Your task to perform on an android device: Clear the shopping cart on ebay. Search for usb-b on ebay, select the first entry, add it to the cart, then select checkout. Image 0: 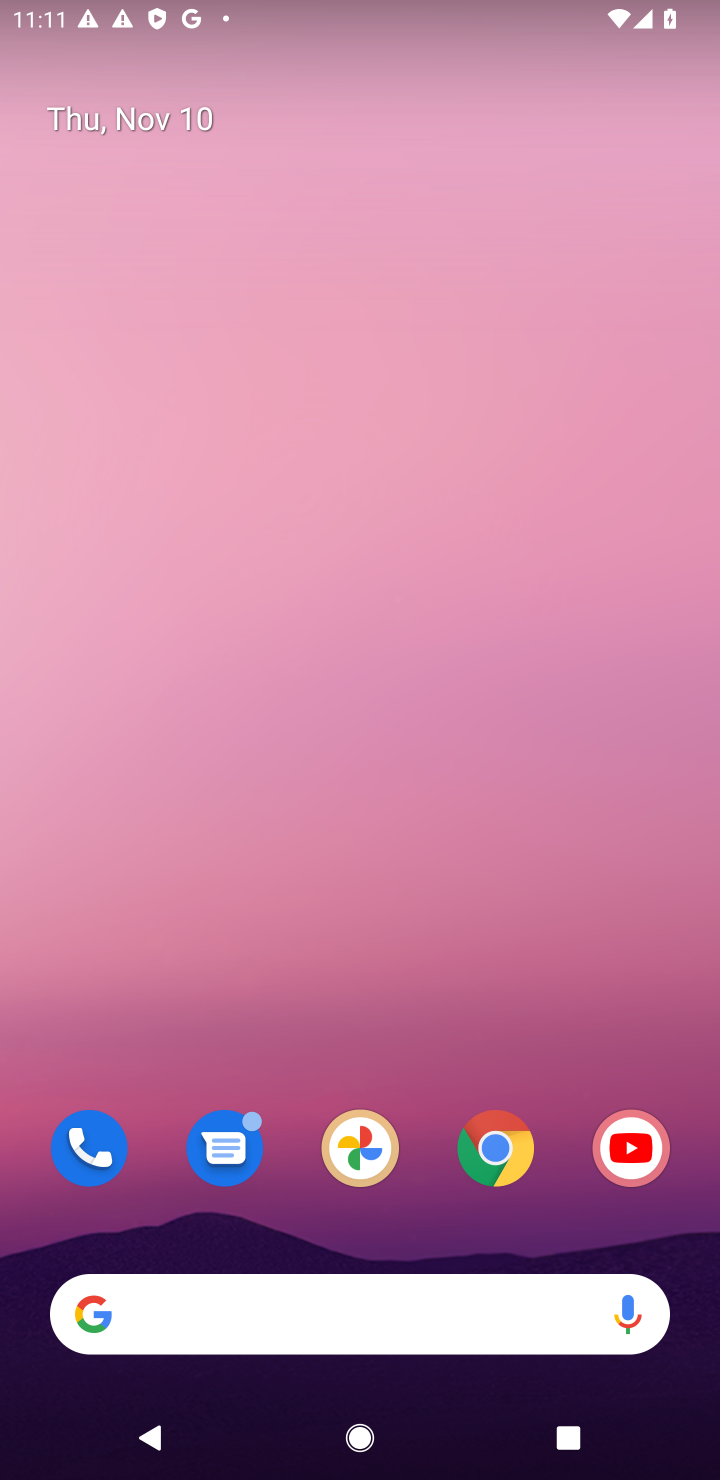
Step 0: click (490, 1135)
Your task to perform on an android device: Clear the shopping cart on ebay. Search for usb-b on ebay, select the first entry, add it to the cart, then select checkout. Image 1: 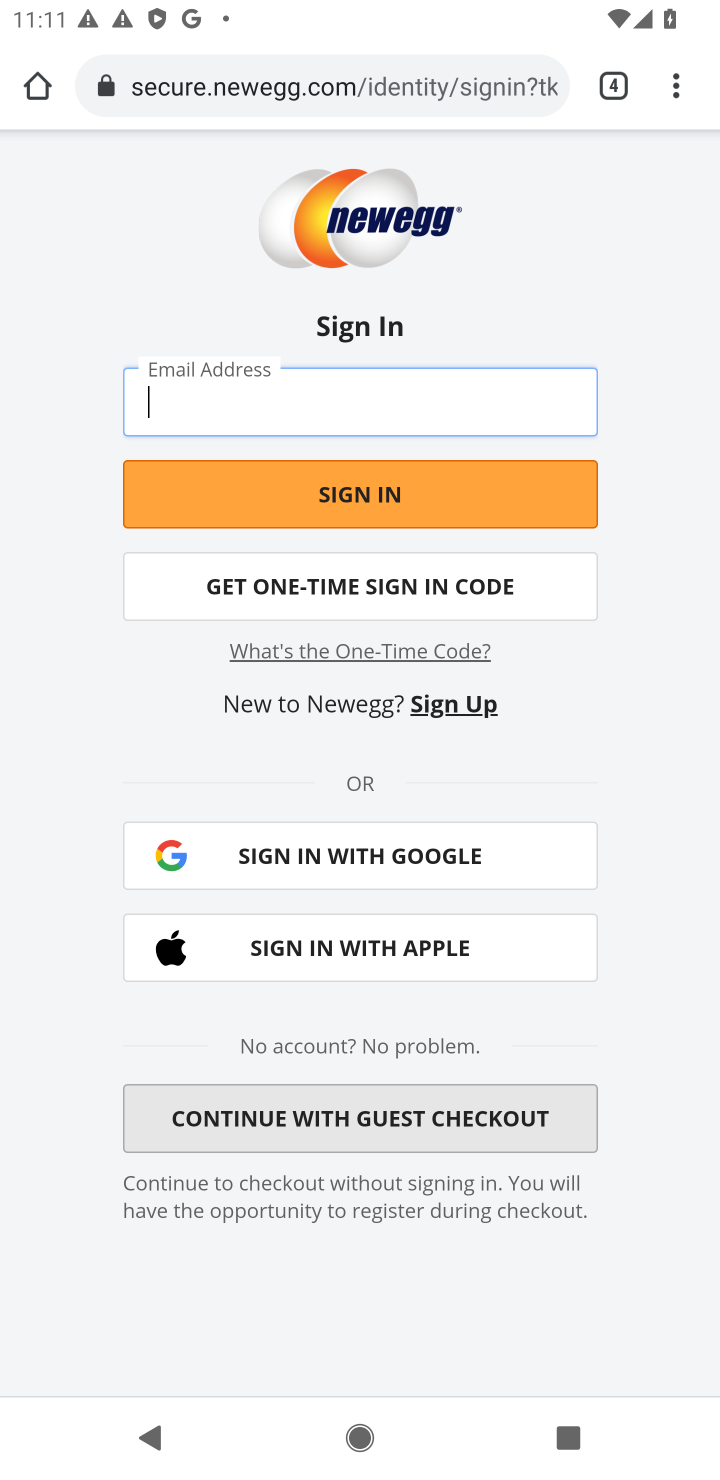
Step 1: click (612, 98)
Your task to perform on an android device: Clear the shopping cart on ebay. Search for usb-b on ebay, select the first entry, add it to the cart, then select checkout. Image 2: 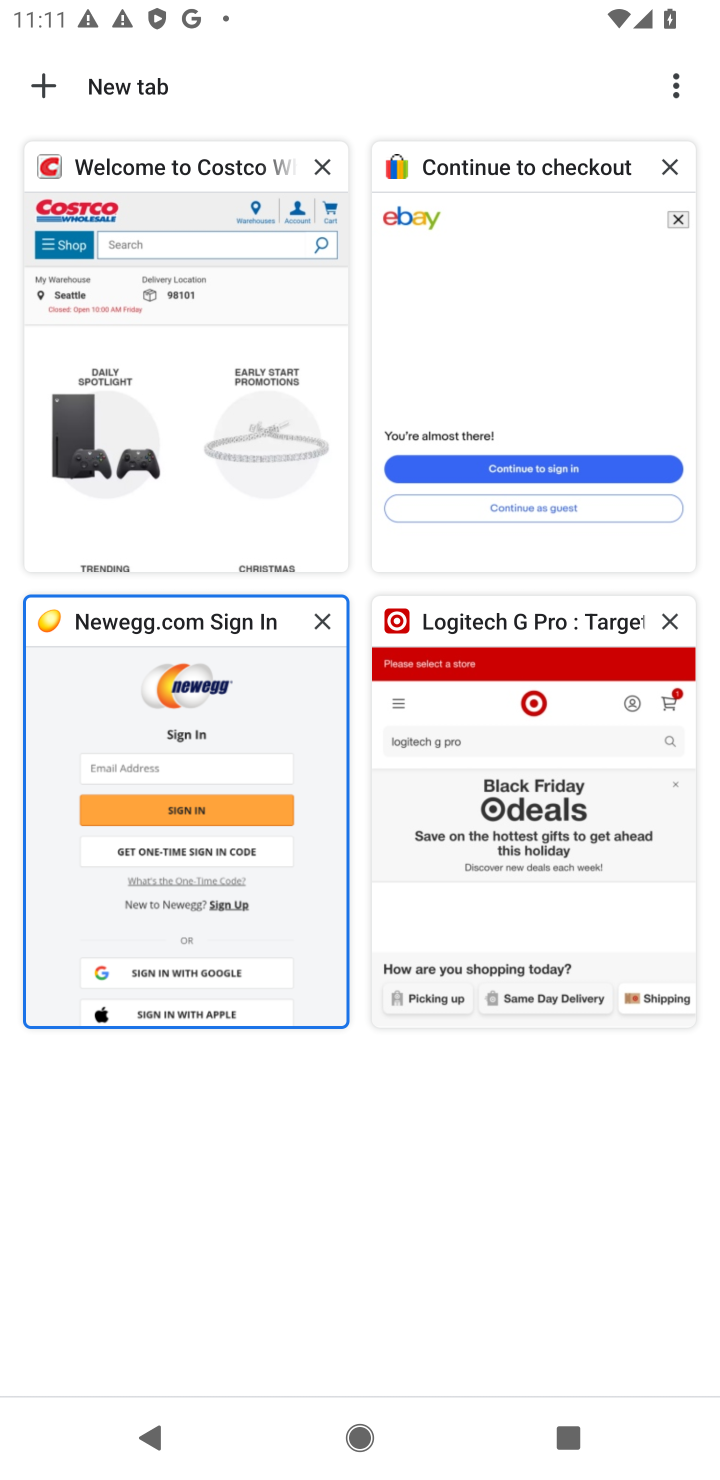
Step 2: click (486, 232)
Your task to perform on an android device: Clear the shopping cart on ebay. Search for usb-b on ebay, select the first entry, add it to the cart, then select checkout. Image 3: 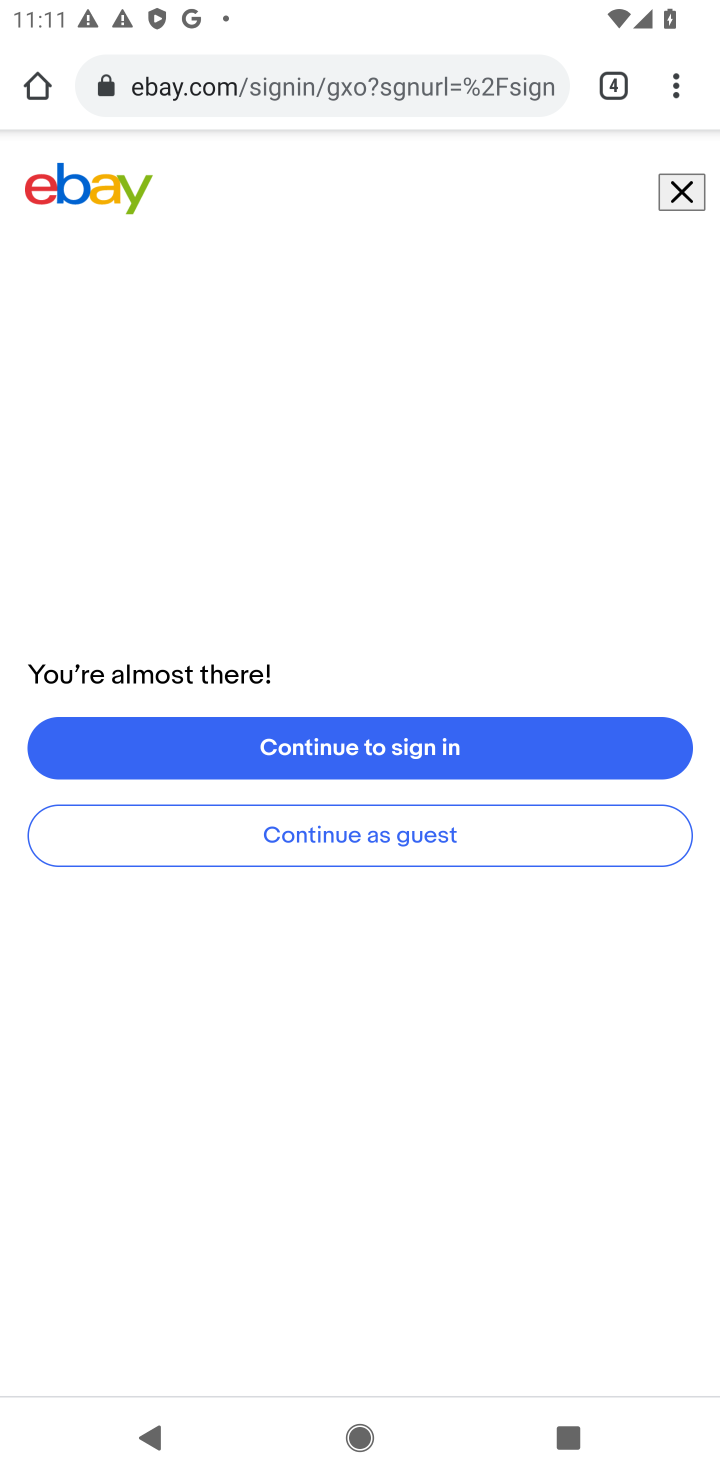
Step 3: click (687, 195)
Your task to perform on an android device: Clear the shopping cart on ebay. Search for usb-b on ebay, select the first entry, add it to the cart, then select checkout. Image 4: 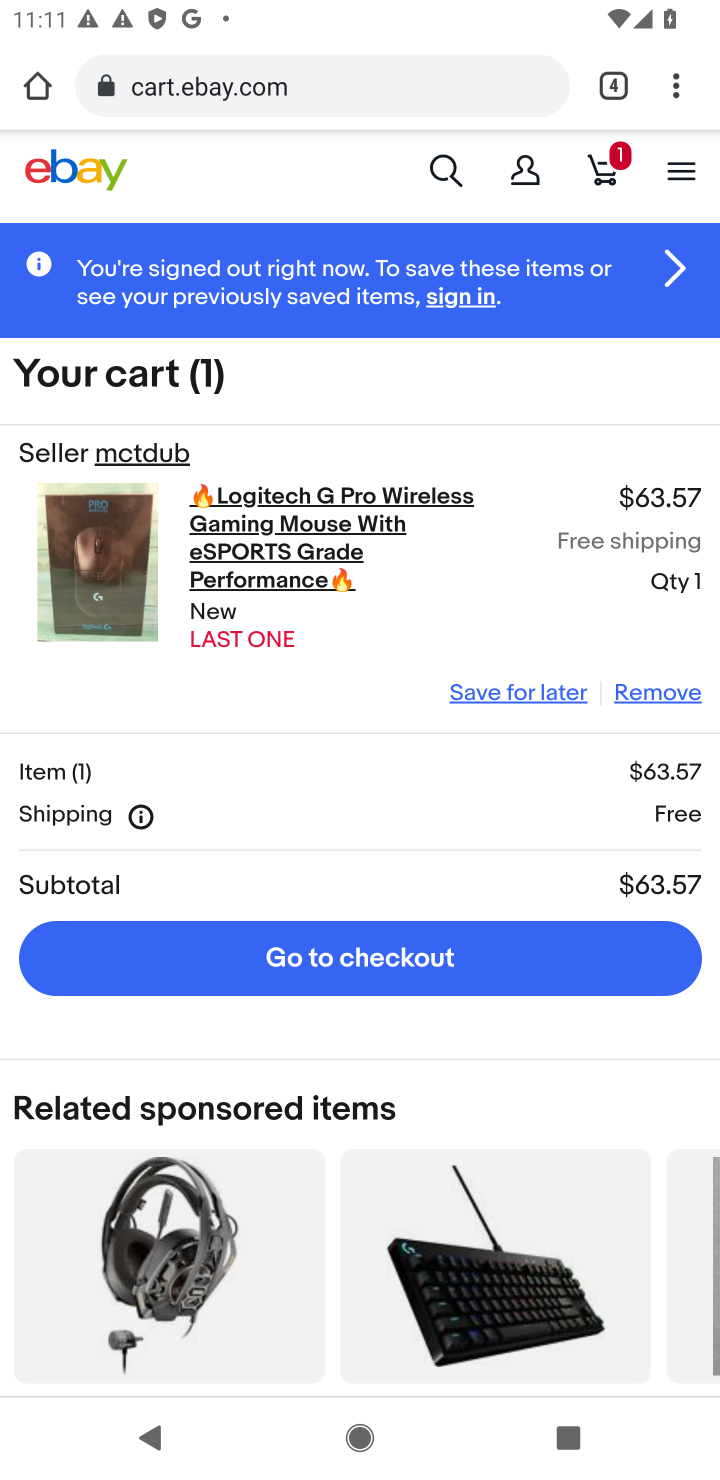
Step 4: click (444, 164)
Your task to perform on an android device: Clear the shopping cart on ebay. Search for usb-b on ebay, select the first entry, add it to the cart, then select checkout. Image 5: 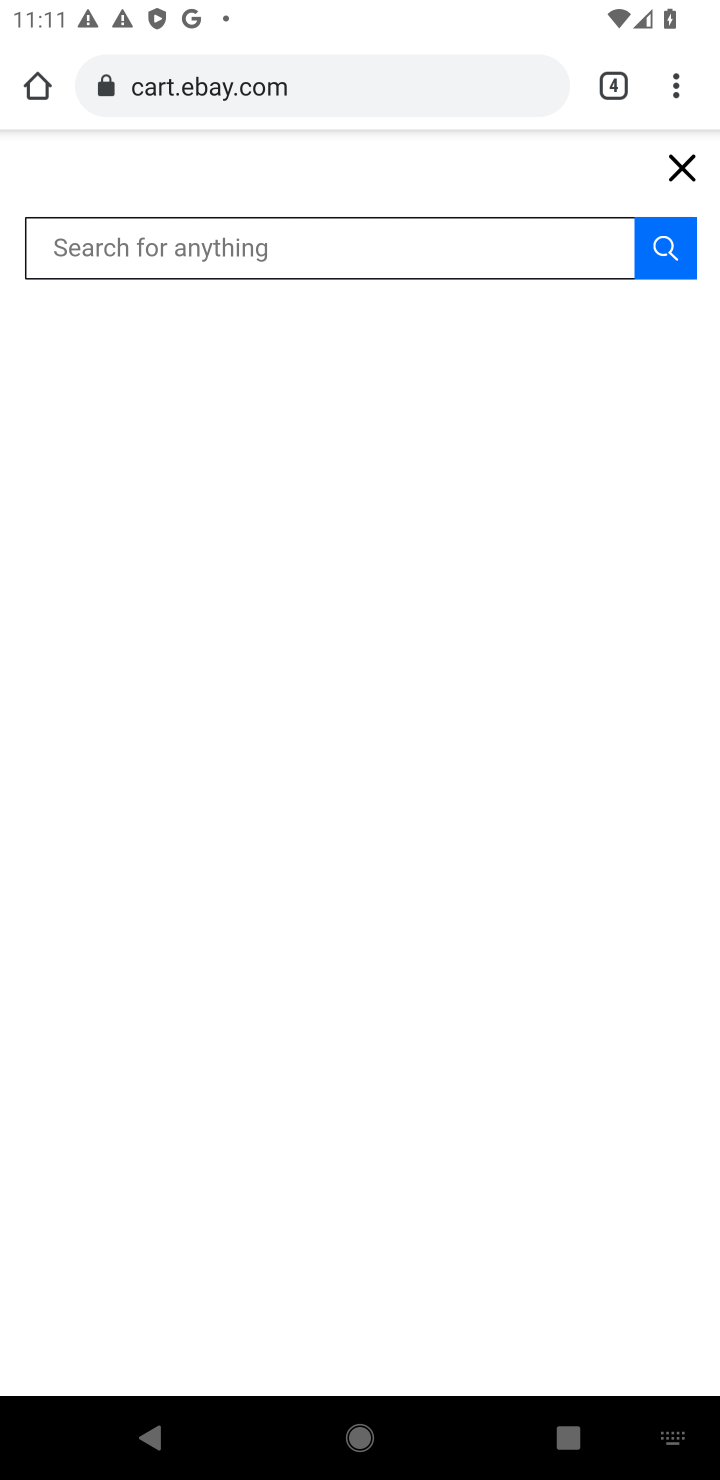
Step 5: type "usb-b"
Your task to perform on an android device: Clear the shopping cart on ebay. Search for usb-b on ebay, select the first entry, add it to the cart, then select checkout. Image 6: 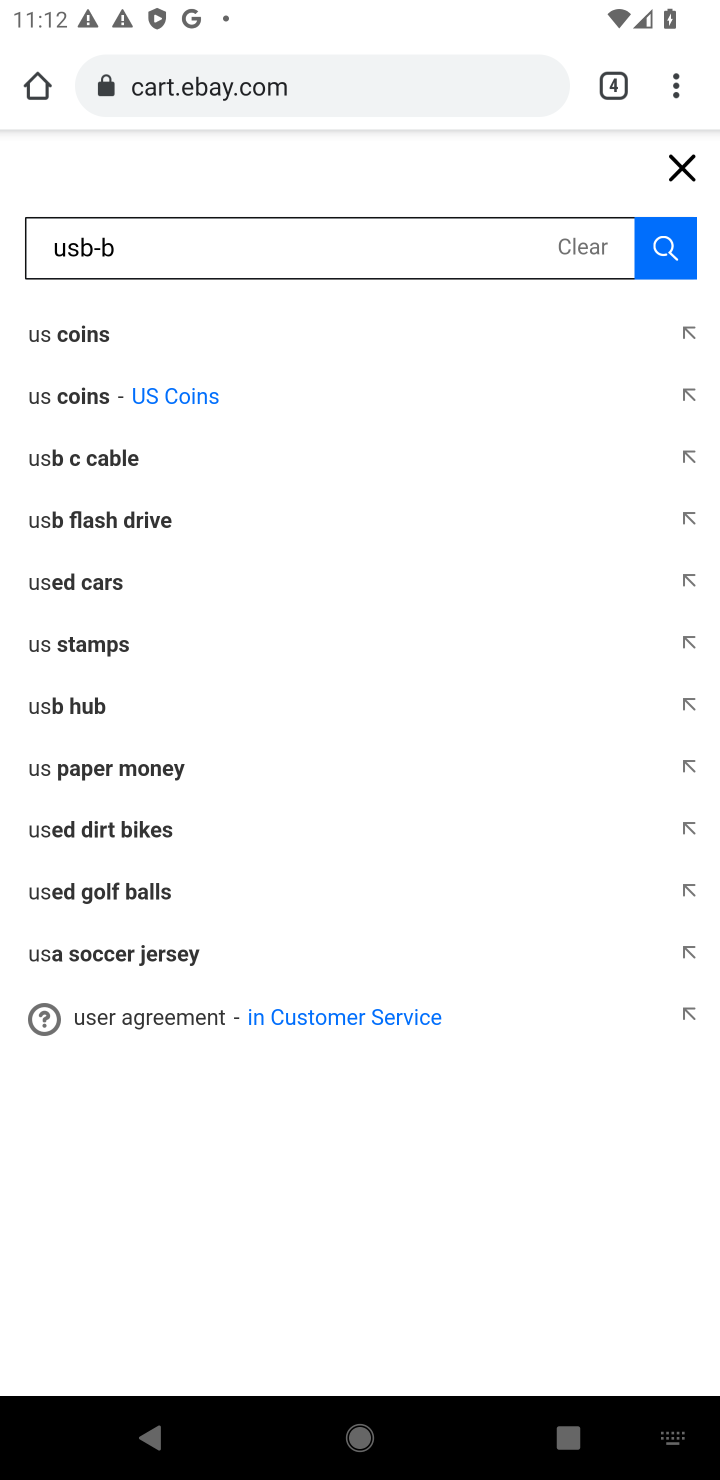
Step 6: click (668, 257)
Your task to perform on an android device: Clear the shopping cart on ebay. Search for usb-b on ebay, select the first entry, add it to the cart, then select checkout. Image 7: 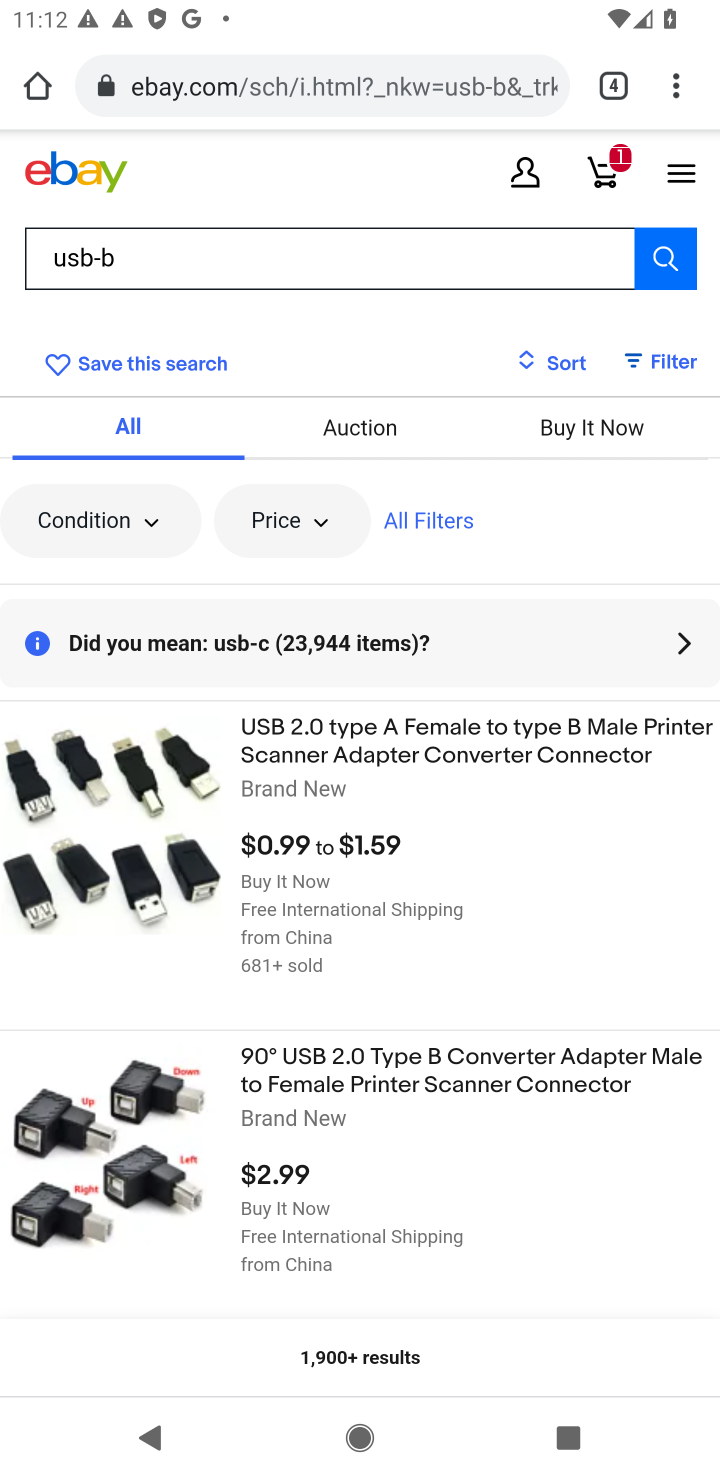
Step 7: click (363, 759)
Your task to perform on an android device: Clear the shopping cart on ebay. Search for usb-b on ebay, select the first entry, add it to the cart, then select checkout. Image 8: 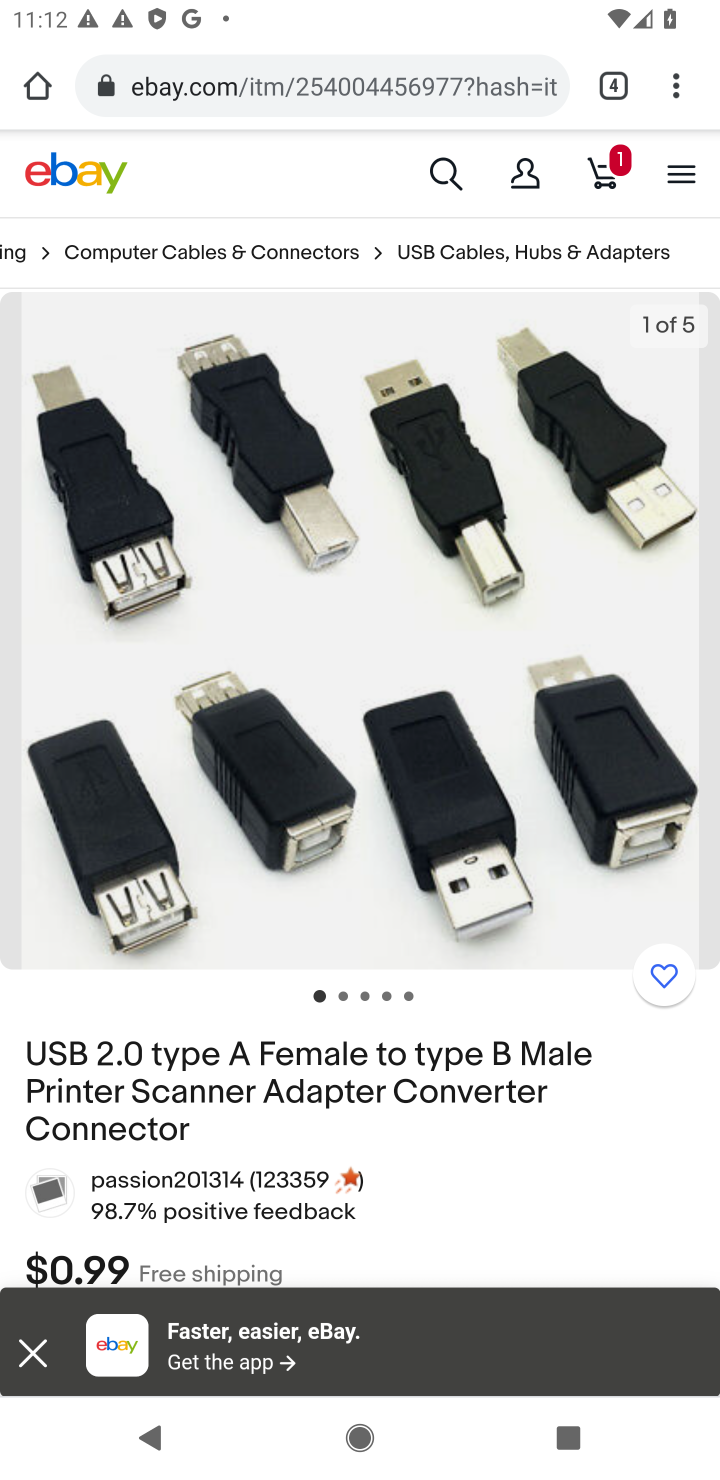
Step 8: drag from (444, 1223) to (506, 716)
Your task to perform on an android device: Clear the shopping cart on ebay. Search for usb-b on ebay, select the first entry, add it to the cart, then select checkout. Image 9: 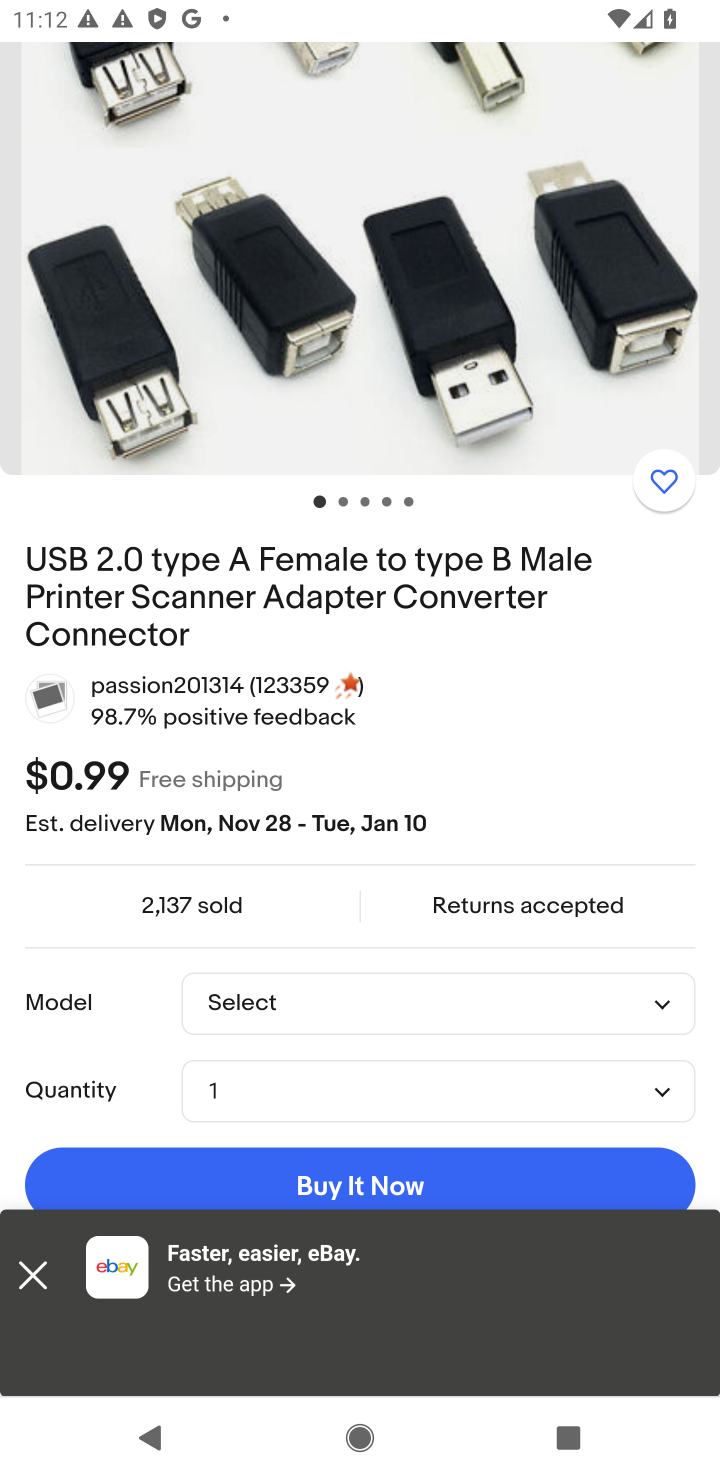
Step 9: click (34, 1358)
Your task to perform on an android device: Clear the shopping cart on ebay. Search for usb-b on ebay, select the first entry, add it to the cart, then select checkout. Image 10: 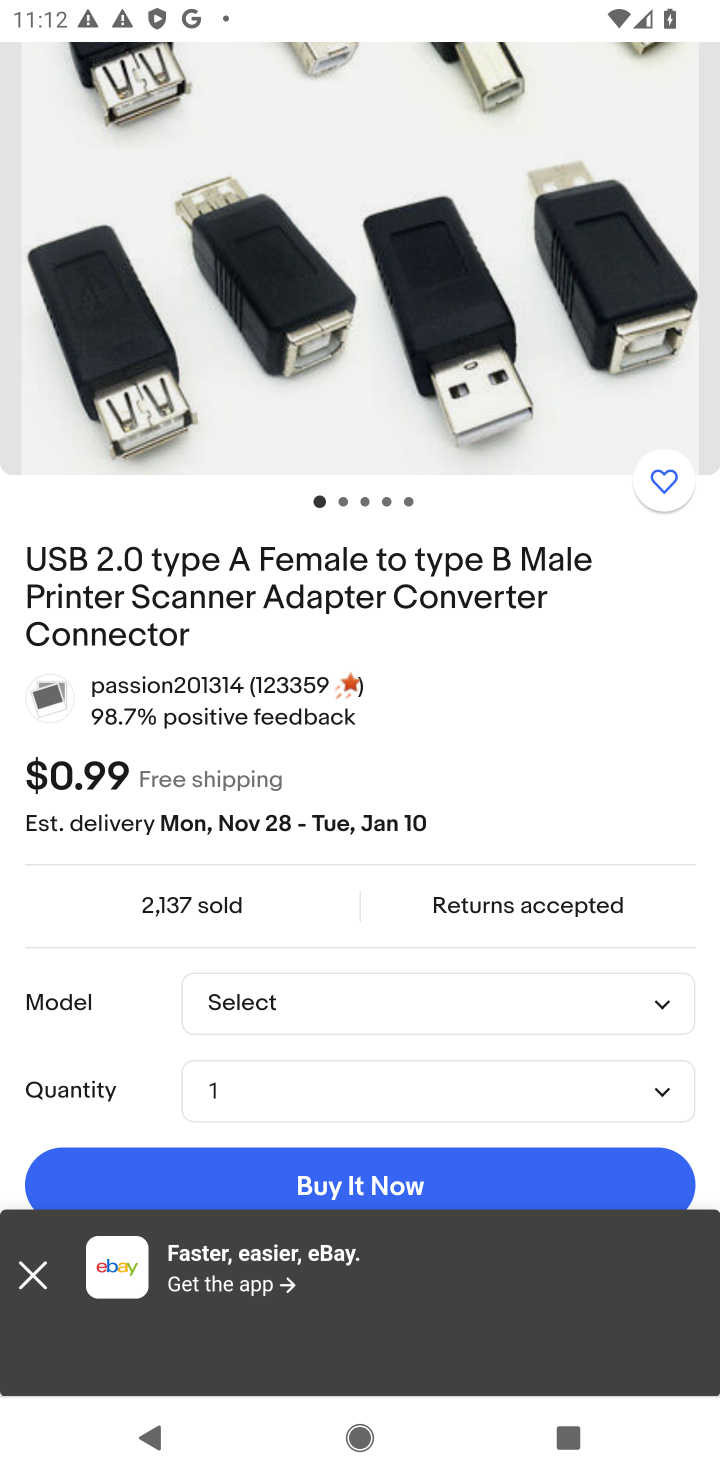
Step 10: click (37, 1289)
Your task to perform on an android device: Clear the shopping cart on ebay. Search for usb-b on ebay, select the first entry, add it to the cart, then select checkout. Image 11: 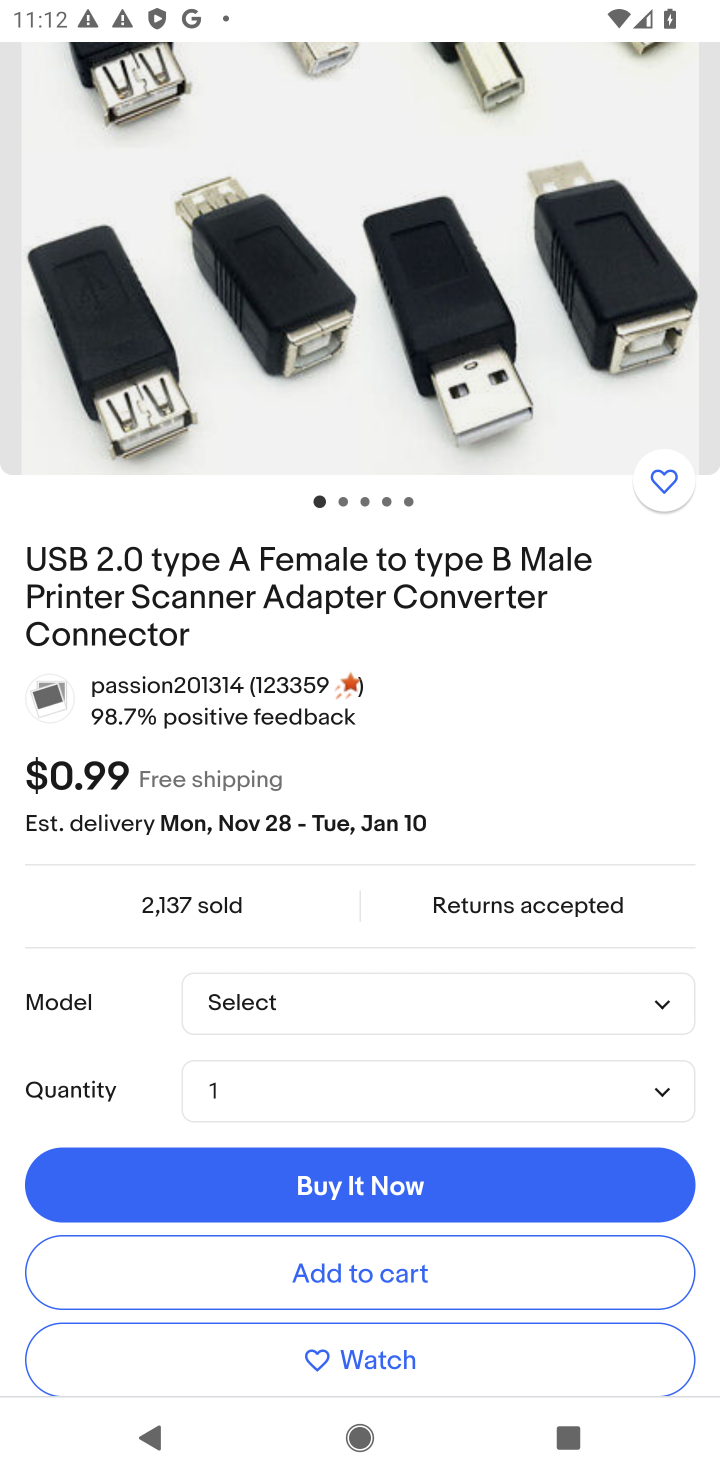
Step 11: click (401, 1277)
Your task to perform on an android device: Clear the shopping cart on ebay. Search for usb-b on ebay, select the first entry, add it to the cart, then select checkout. Image 12: 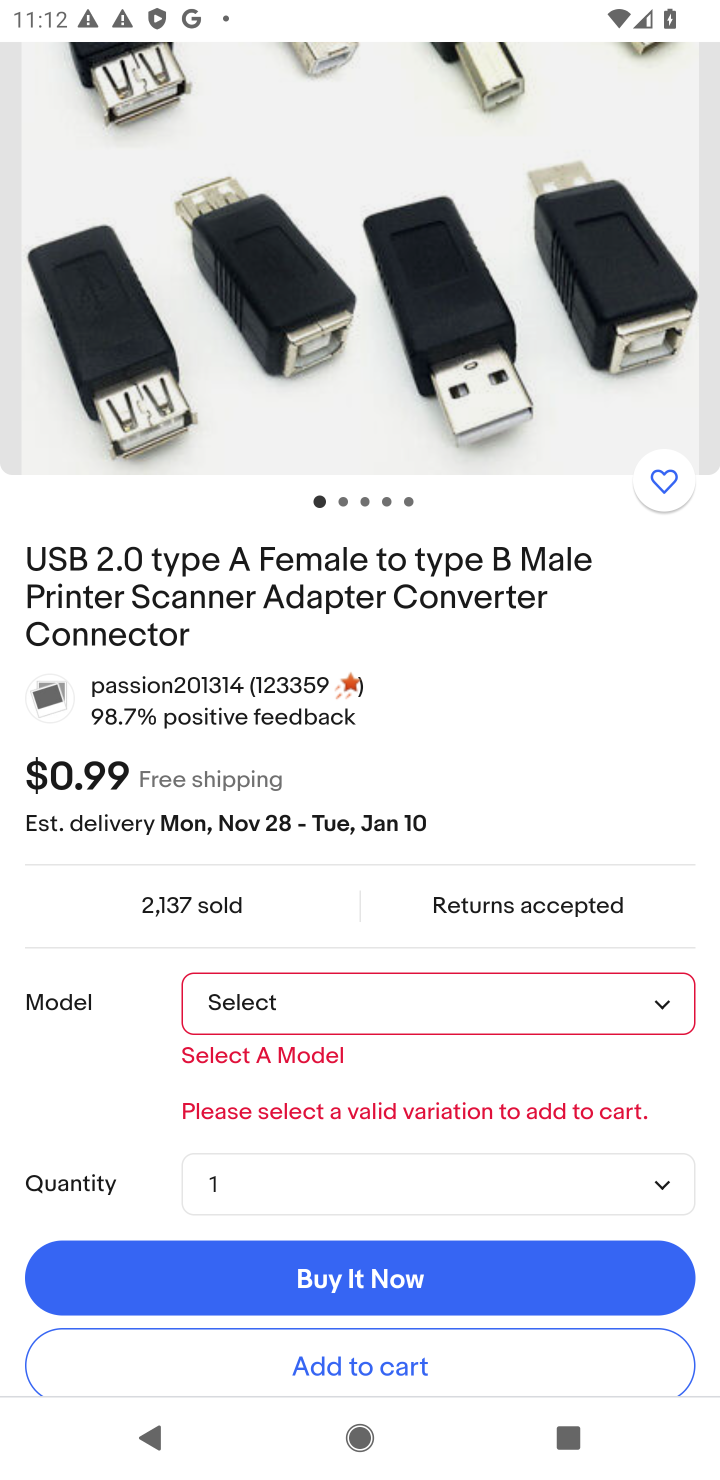
Step 12: click (664, 1007)
Your task to perform on an android device: Clear the shopping cart on ebay. Search for usb-b on ebay, select the first entry, add it to the cart, then select checkout. Image 13: 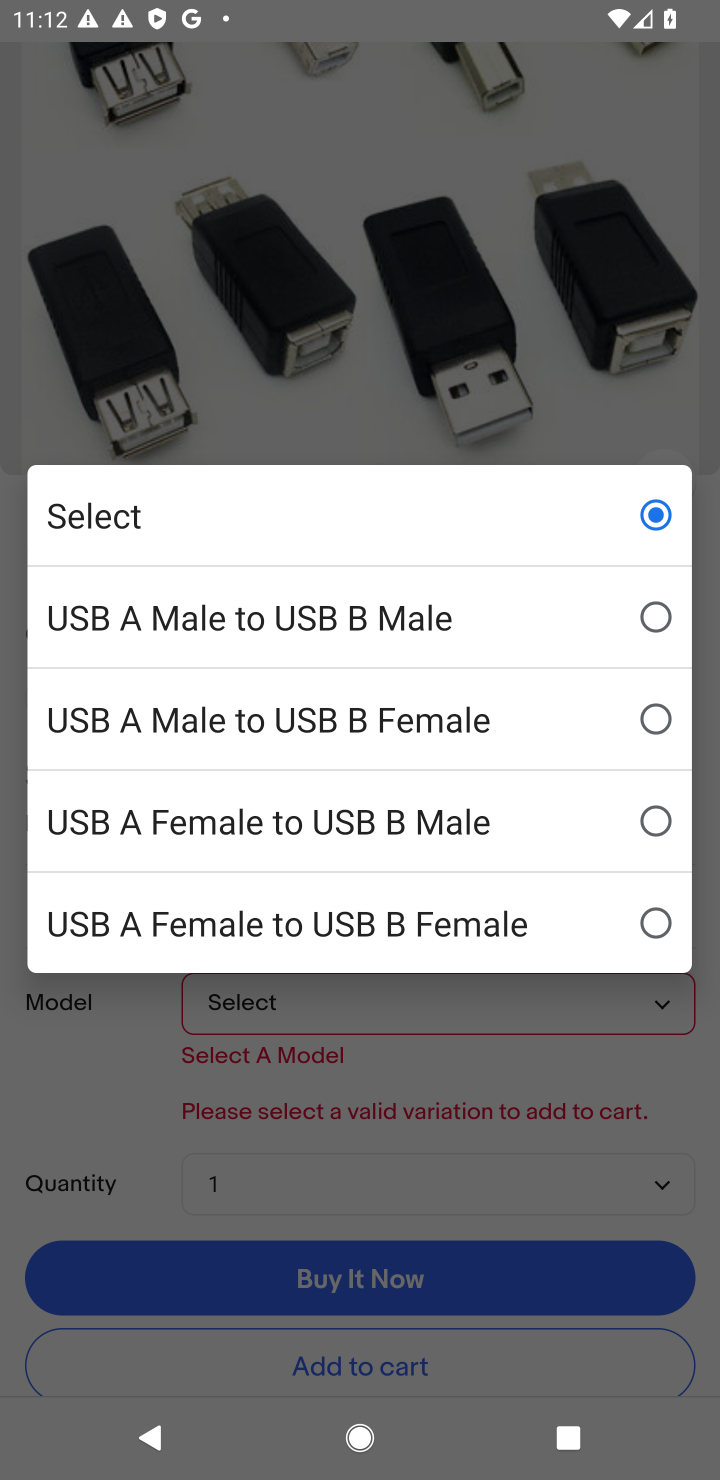
Step 13: click (652, 625)
Your task to perform on an android device: Clear the shopping cart on ebay. Search for usb-b on ebay, select the first entry, add it to the cart, then select checkout. Image 14: 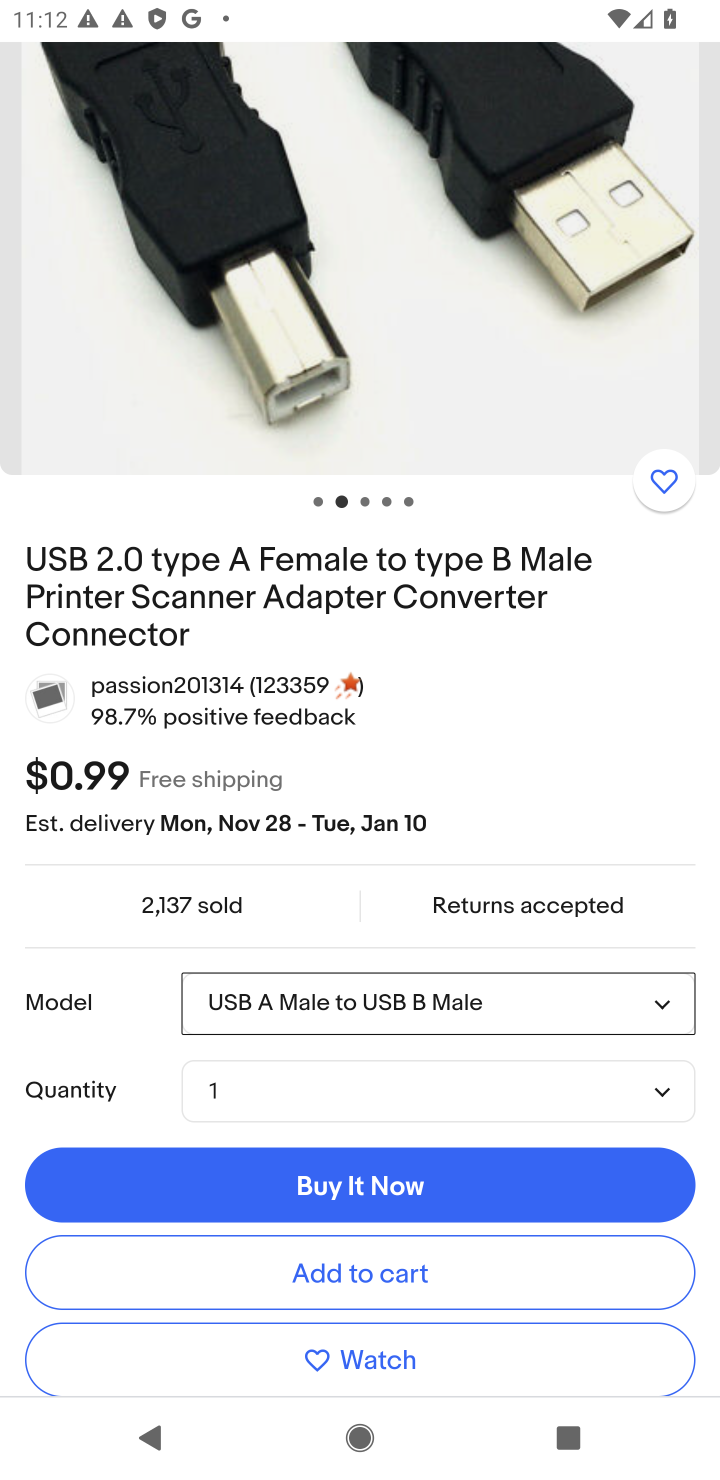
Step 14: click (422, 1274)
Your task to perform on an android device: Clear the shopping cart on ebay. Search for usb-b on ebay, select the first entry, add it to the cart, then select checkout. Image 15: 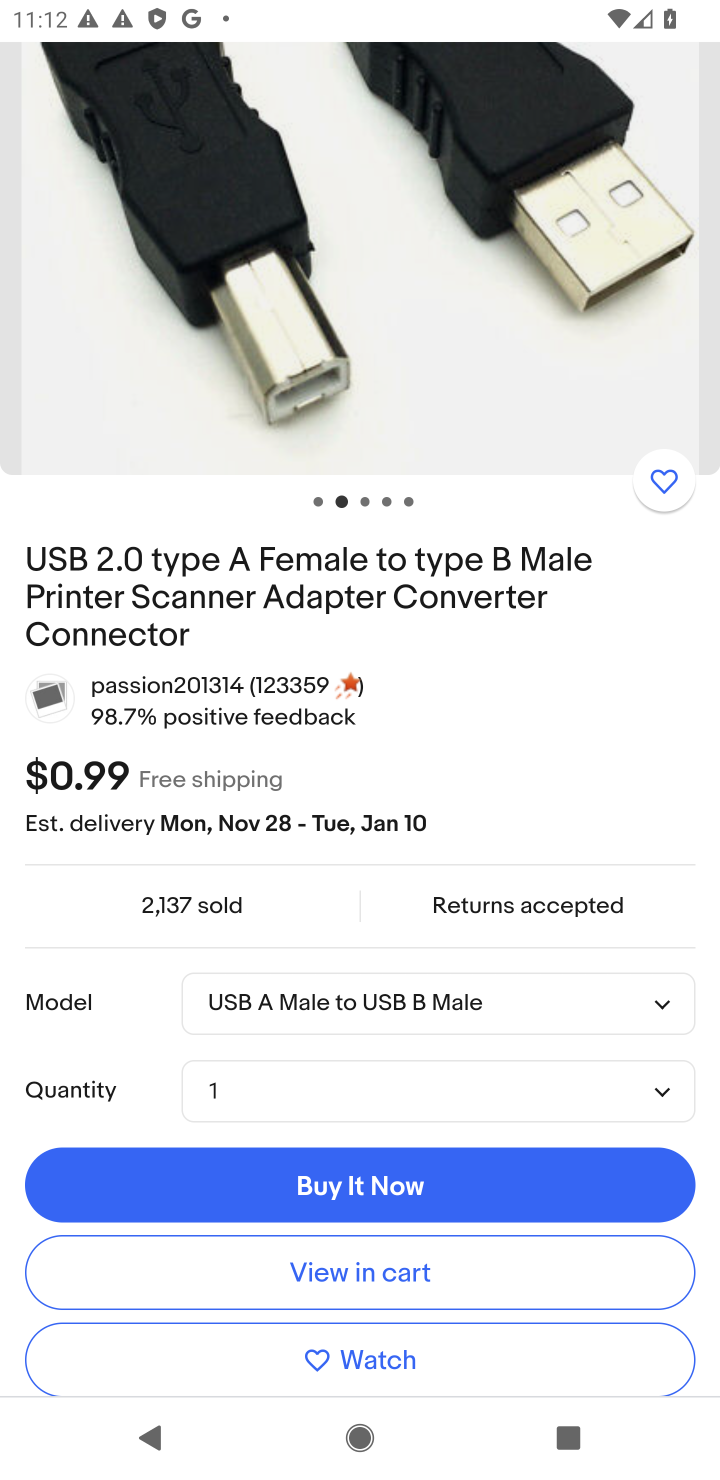
Step 15: task complete